Your task to perform on an android device: turn on the 24-hour format for clock Image 0: 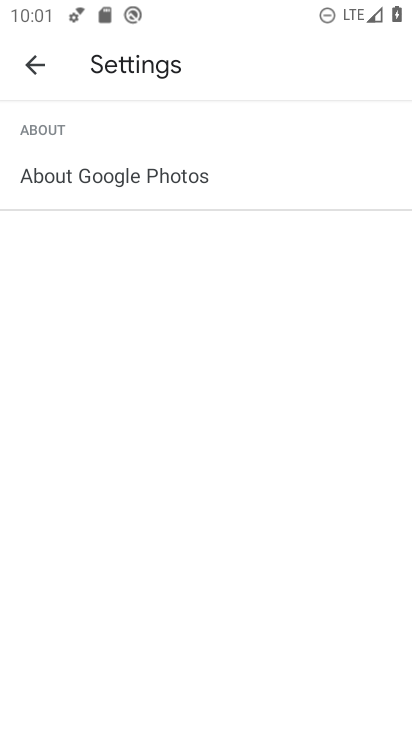
Step 0: press home button
Your task to perform on an android device: turn on the 24-hour format for clock Image 1: 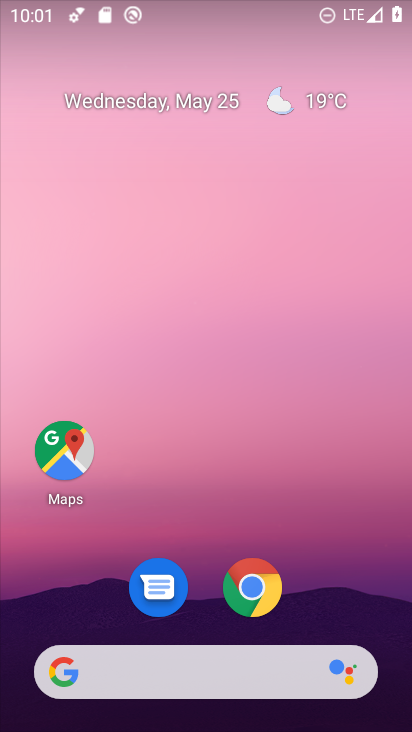
Step 1: drag from (373, 623) to (320, 100)
Your task to perform on an android device: turn on the 24-hour format for clock Image 2: 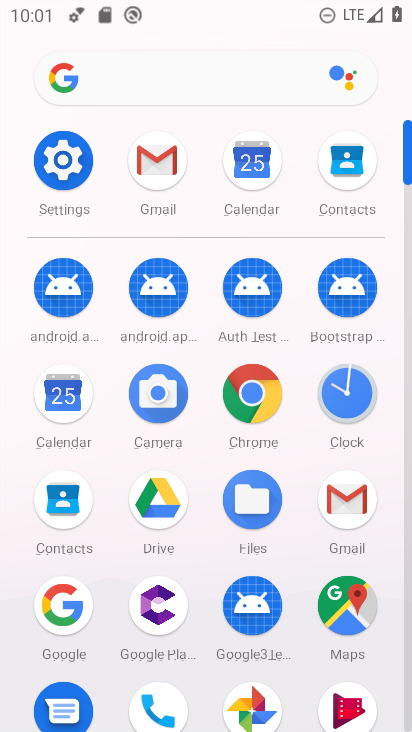
Step 2: click (346, 398)
Your task to perform on an android device: turn on the 24-hour format for clock Image 3: 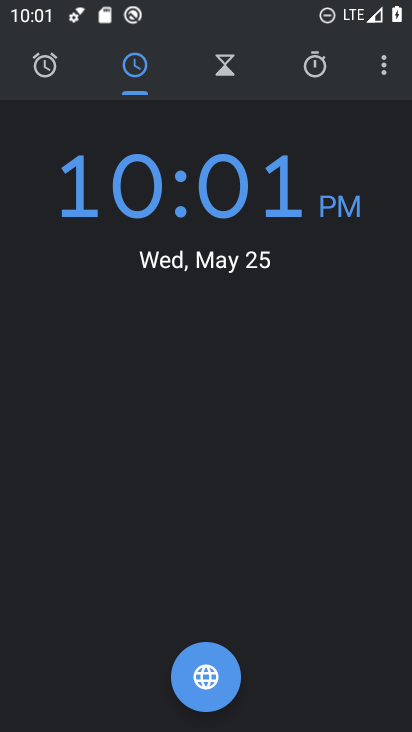
Step 3: click (385, 68)
Your task to perform on an android device: turn on the 24-hour format for clock Image 4: 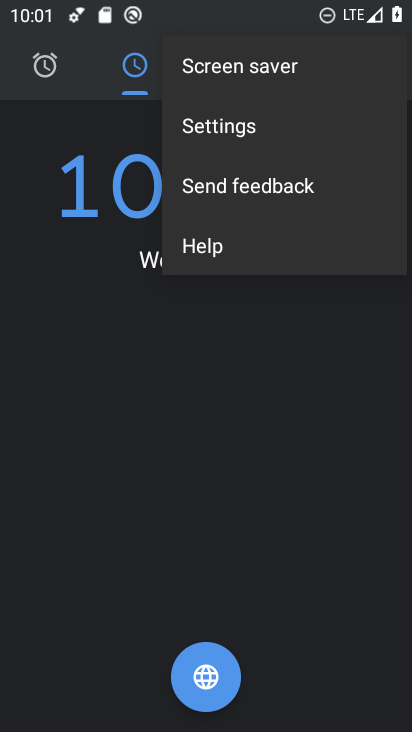
Step 4: click (214, 126)
Your task to perform on an android device: turn on the 24-hour format for clock Image 5: 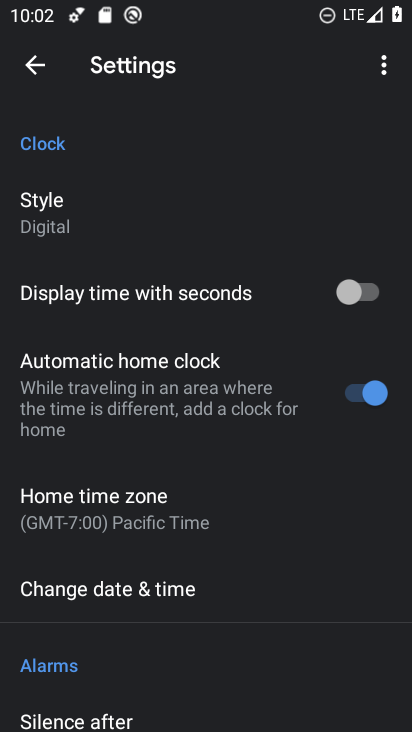
Step 5: click (152, 595)
Your task to perform on an android device: turn on the 24-hour format for clock Image 6: 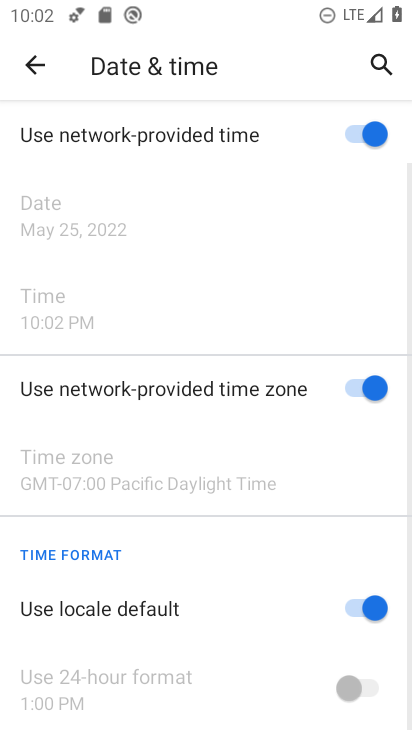
Step 6: drag from (252, 661) to (250, 378)
Your task to perform on an android device: turn on the 24-hour format for clock Image 7: 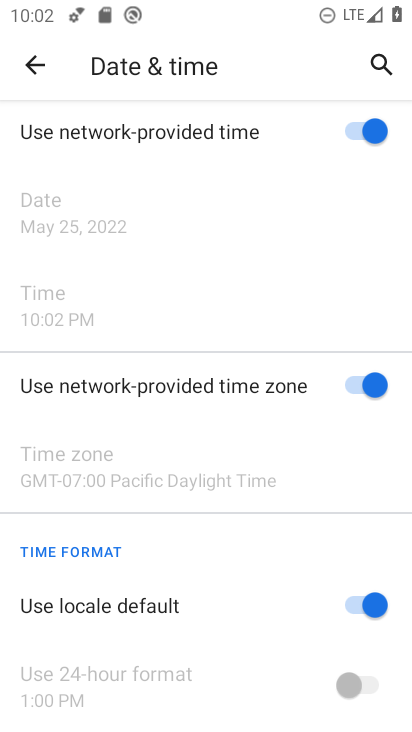
Step 7: click (342, 604)
Your task to perform on an android device: turn on the 24-hour format for clock Image 8: 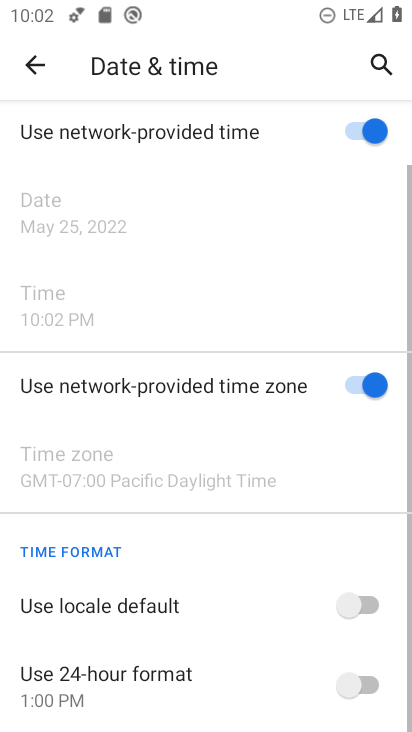
Step 8: click (375, 681)
Your task to perform on an android device: turn on the 24-hour format for clock Image 9: 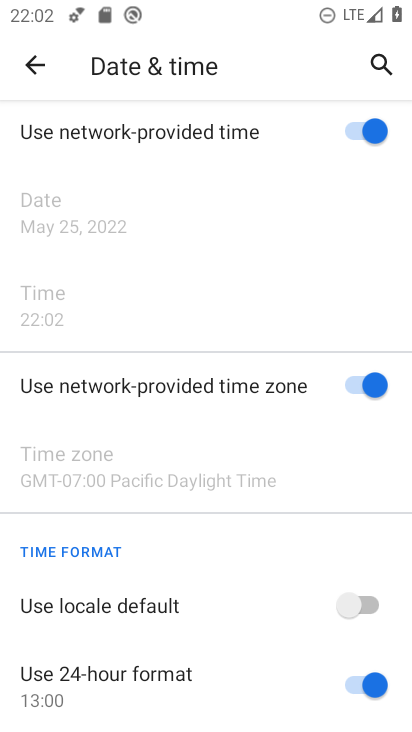
Step 9: task complete